Your task to perform on an android device: Go to eBay Image 0: 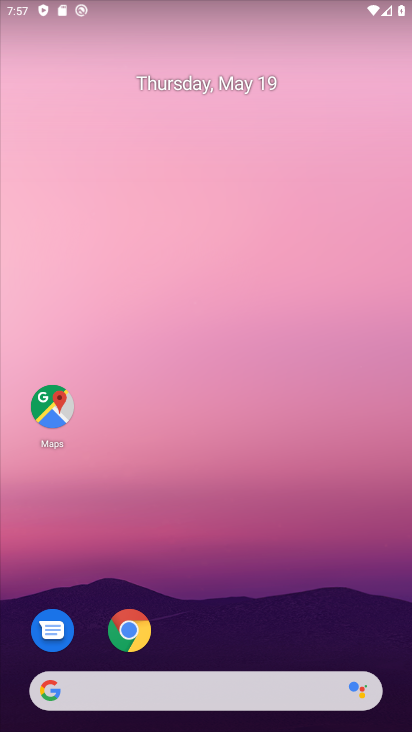
Step 0: click (130, 633)
Your task to perform on an android device: Go to eBay Image 1: 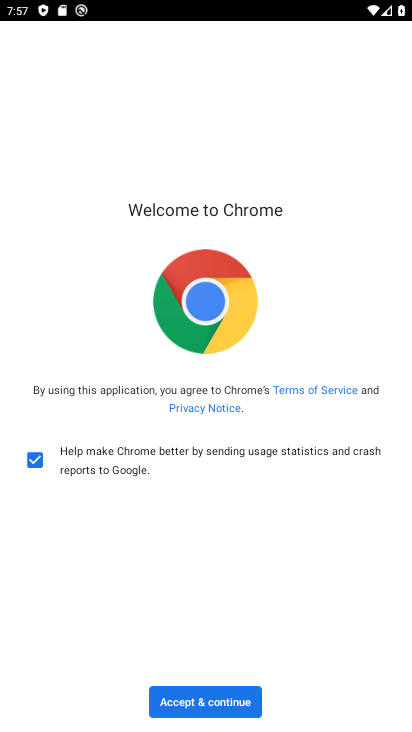
Step 1: click (206, 702)
Your task to perform on an android device: Go to eBay Image 2: 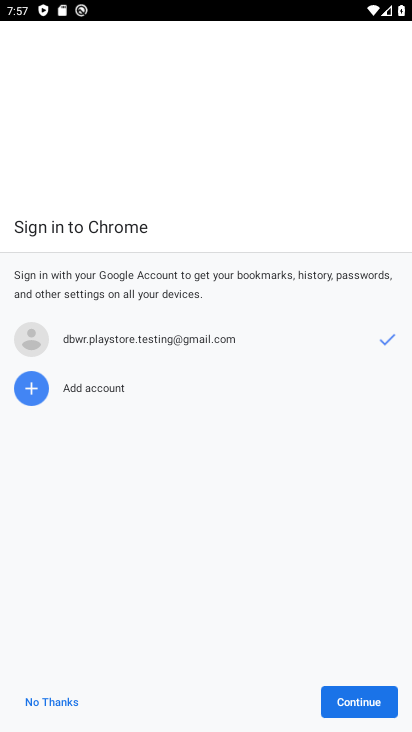
Step 2: click (357, 696)
Your task to perform on an android device: Go to eBay Image 3: 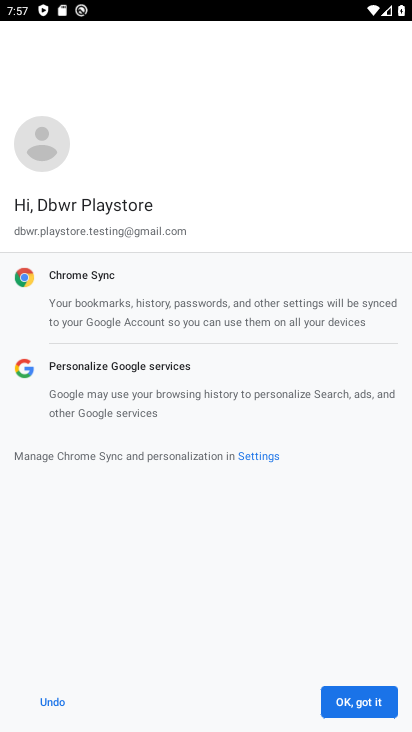
Step 3: click (357, 696)
Your task to perform on an android device: Go to eBay Image 4: 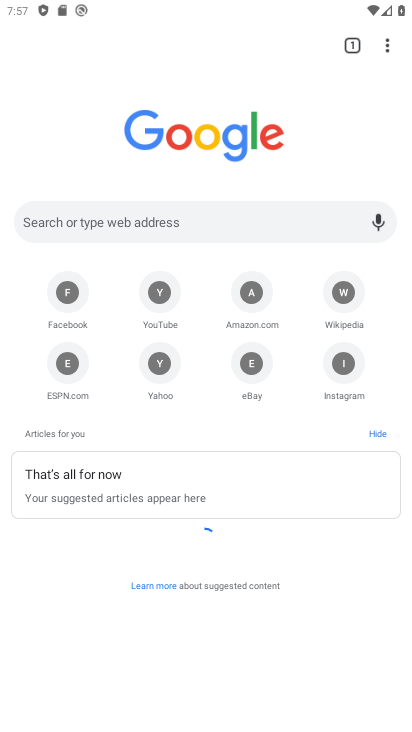
Step 4: click (144, 210)
Your task to perform on an android device: Go to eBay Image 5: 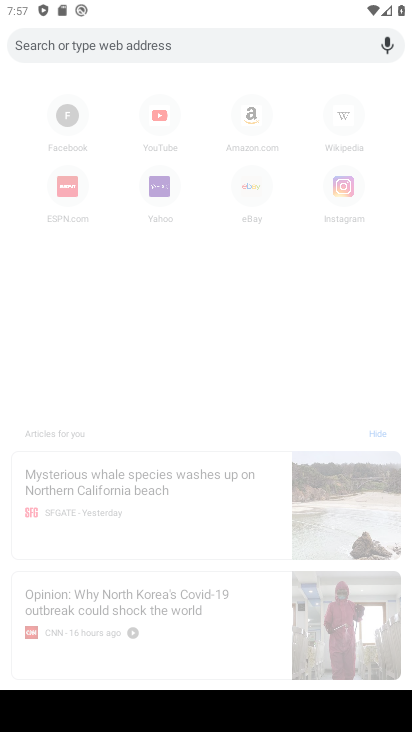
Step 5: type "ebay"
Your task to perform on an android device: Go to eBay Image 6: 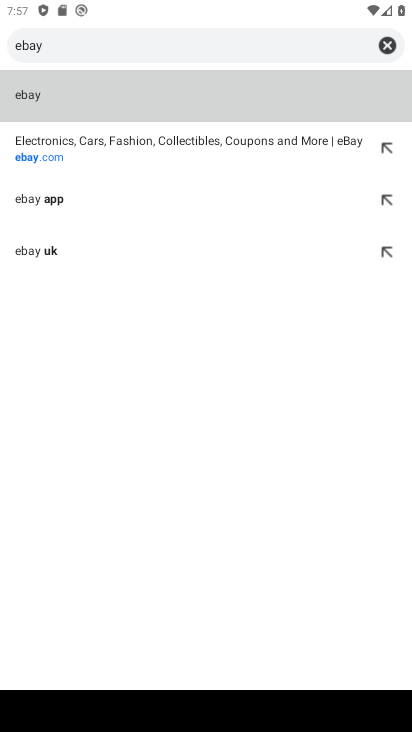
Step 6: click (49, 145)
Your task to perform on an android device: Go to eBay Image 7: 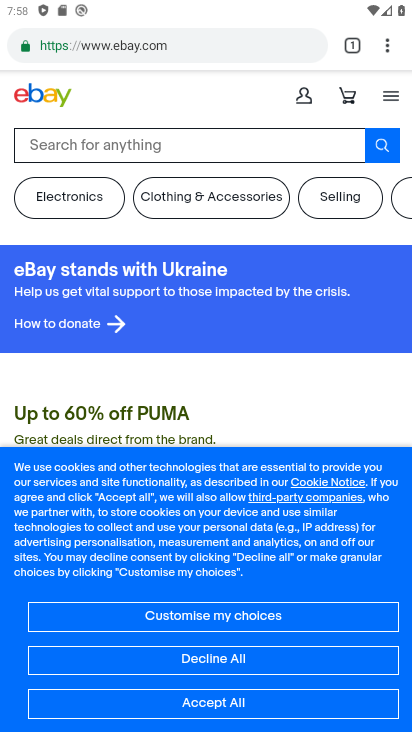
Step 7: task complete